Your task to perform on an android device: open a new tab in the chrome app Image 0: 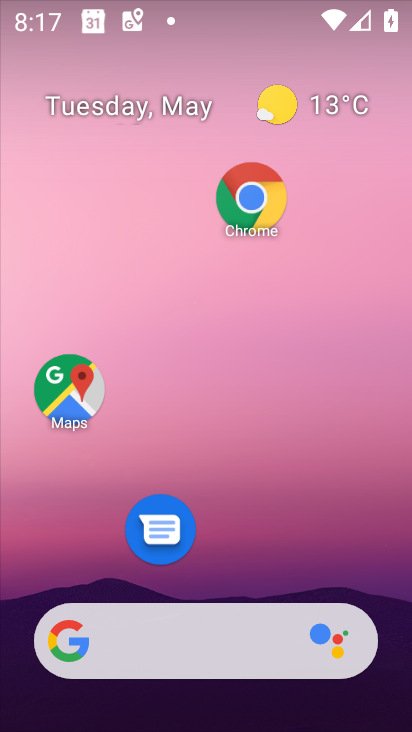
Step 0: click (284, 202)
Your task to perform on an android device: open a new tab in the chrome app Image 1: 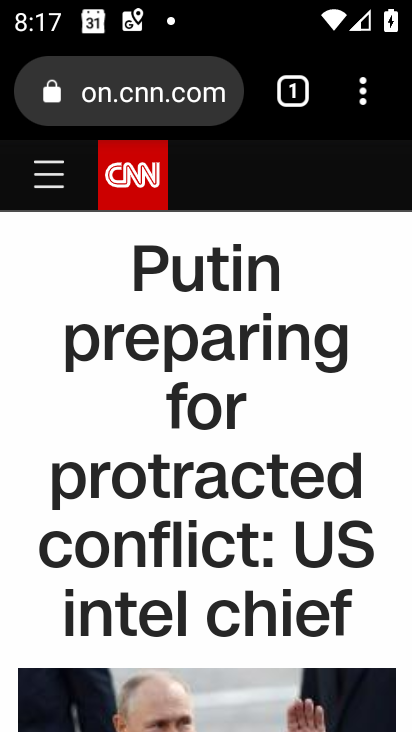
Step 1: click (377, 92)
Your task to perform on an android device: open a new tab in the chrome app Image 2: 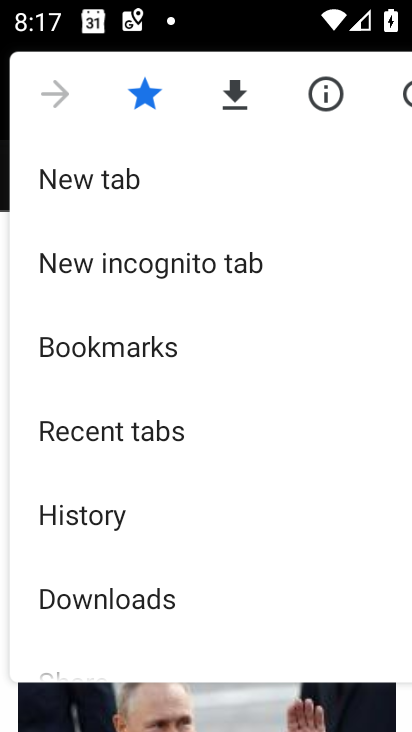
Step 2: drag from (235, 547) to (223, 350)
Your task to perform on an android device: open a new tab in the chrome app Image 3: 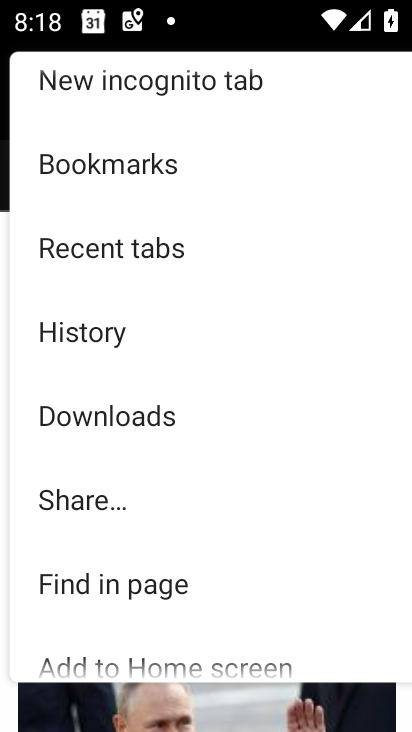
Step 3: click (175, 554)
Your task to perform on an android device: open a new tab in the chrome app Image 4: 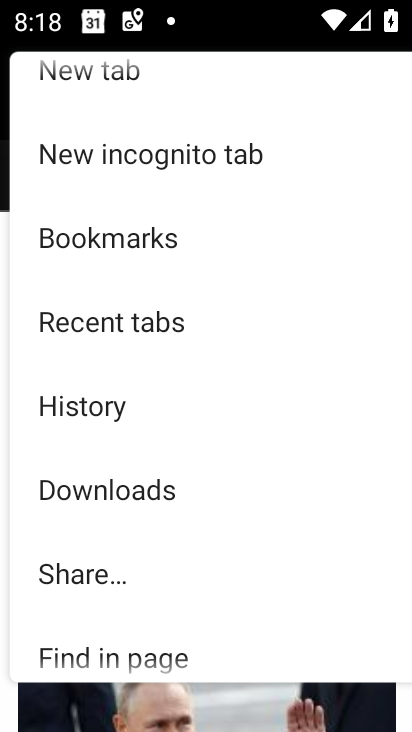
Step 4: click (239, 88)
Your task to perform on an android device: open a new tab in the chrome app Image 5: 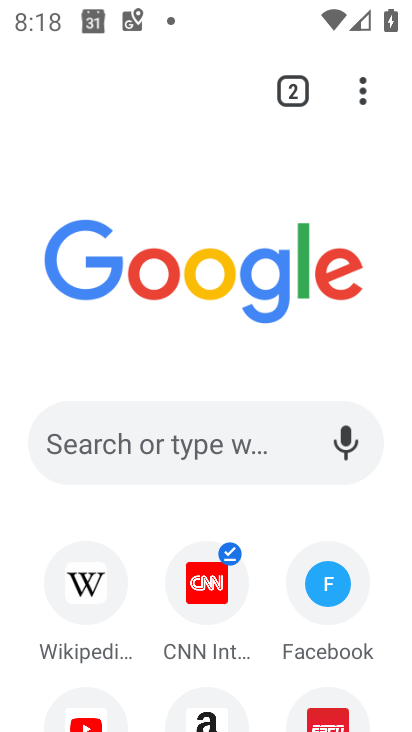
Step 5: task complete